Your task to perform on an android device: When is my next meeting? Image 0: 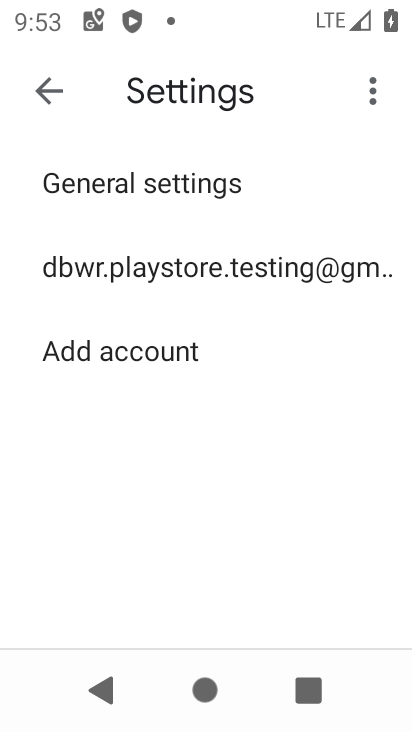
Step 0: press home button
Your task to perform on an android device: When is my next meeting? Image 1: 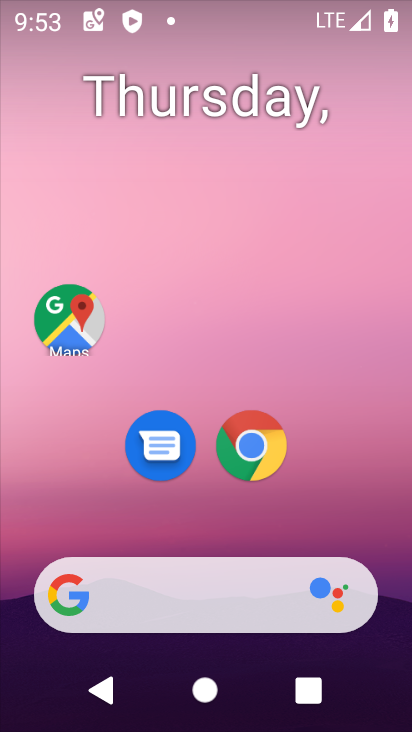
Step 1: drag from (95, 595) to (135, 357)
Your task to perform on an android device: When is my next meeting? Image 2: 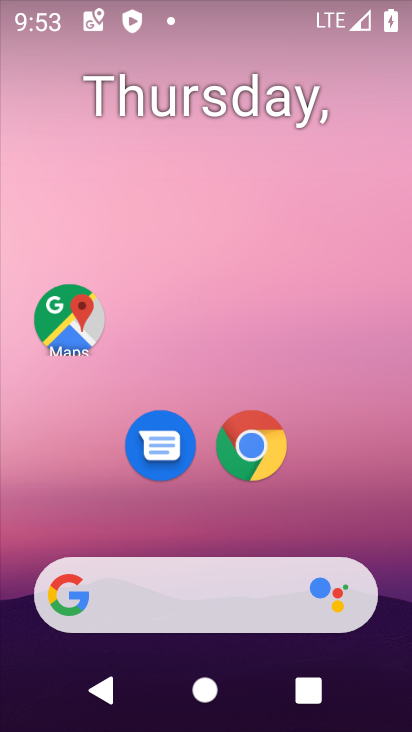
Step 2: drag from (293, 582) to (284, 107)
Your task to perform on an android device: When is my next meeting? Image 3: 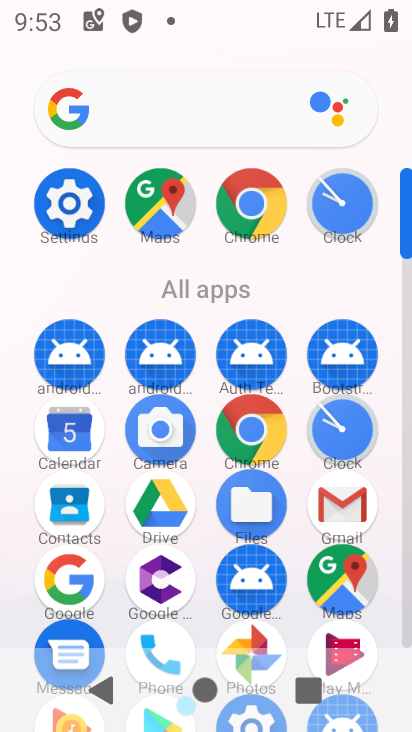
Step 3: drag from (120, 663) to (159, 307)
Your task to perform on an android device: When is my next meeting? Image 4: 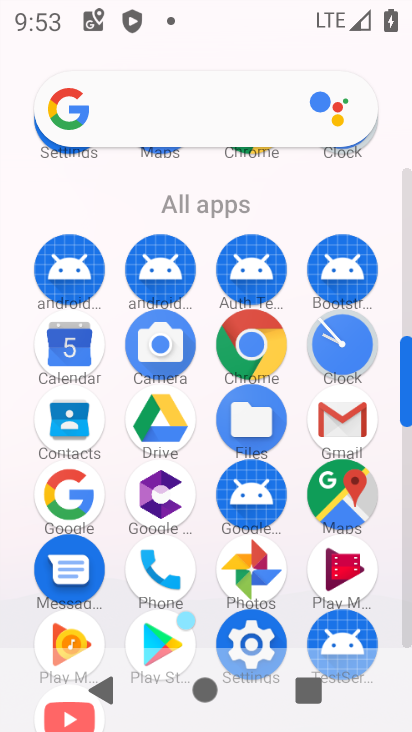
Step 4: click (73, 338)
Your task to perform on an android device: When is my next meeting? Image 5: 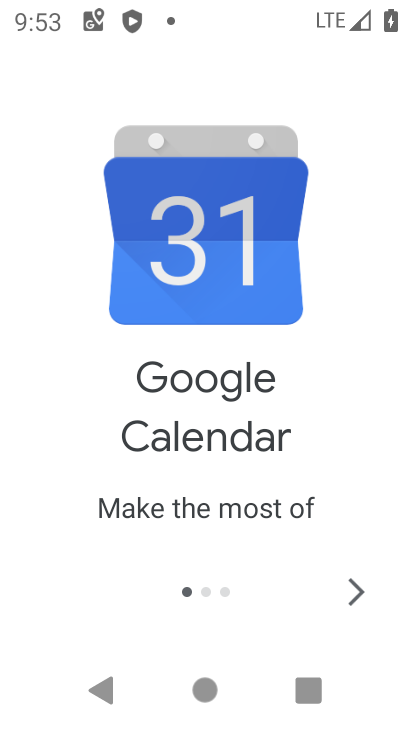
Step 5: click (349, 596)
Your task to perform on an android device: When is my next meeting? Image 6: 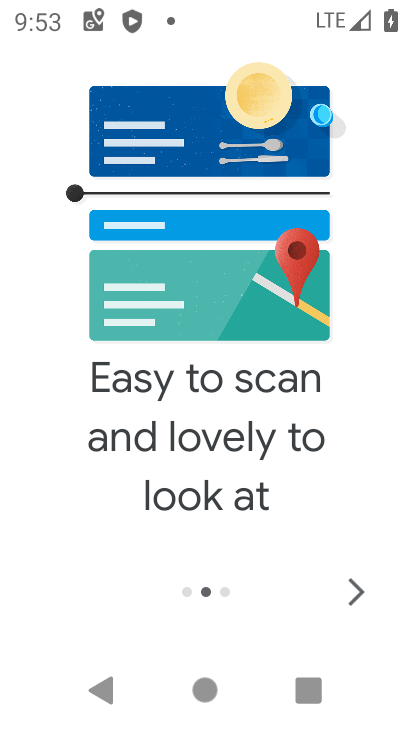
Step 6: click (353, 598)
Your task to perform on an android device: When is my next meeting? Image 7: 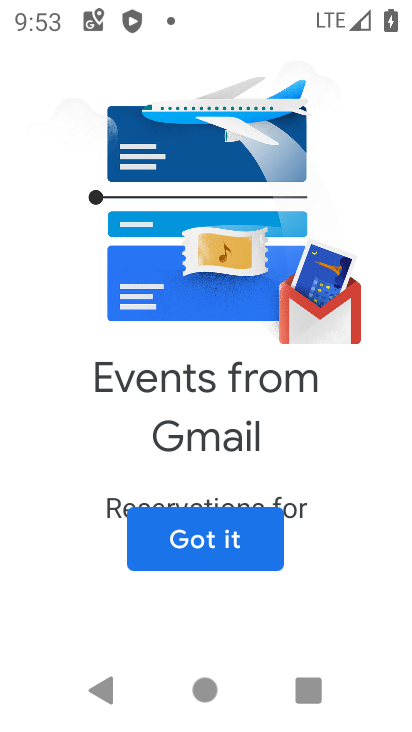
Step 7: click (209, 544)
Your task to perform on an android device: When is my next meeting? Image 8: 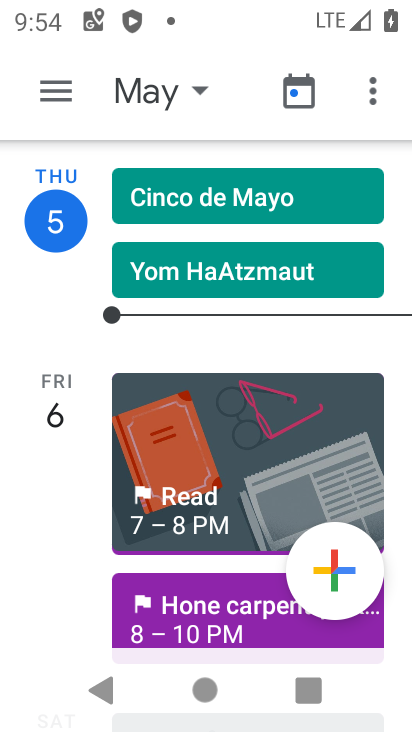
Step 8: click (52, 100)
Your task to perform on an android device: When is my next meeting? Image 9: 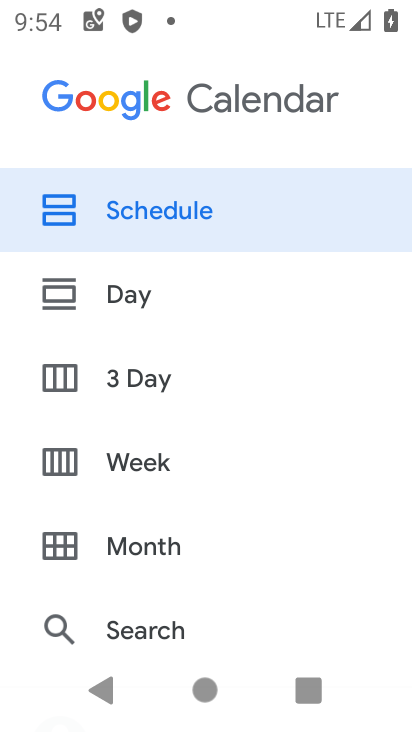
Step 9: click (159, 220)
Your task to perform on an android device: When is my next meeting? Image 10: 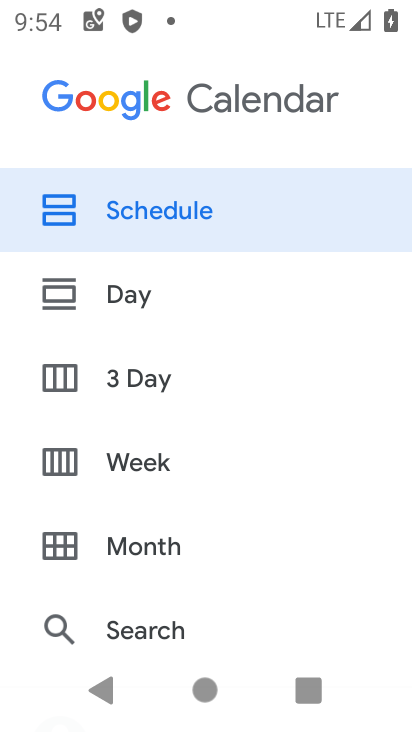
Step 10: click (274, 242)
Your task to perform on an android device: When is my next meeting? Image 11: 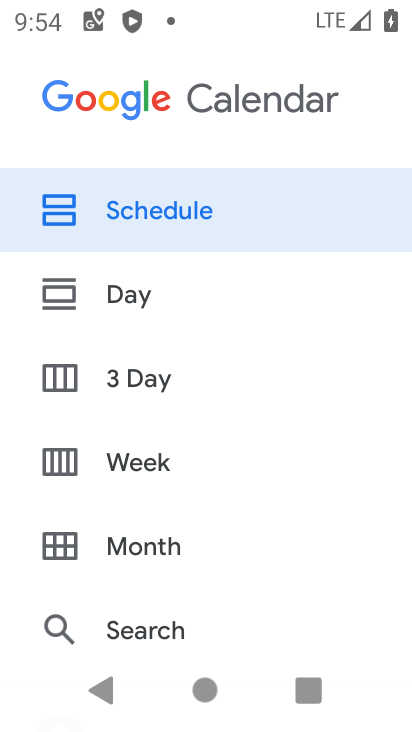
Step 11: click (133, 287)
Your task to perform on an android device: When is my next meeting? Image 12: 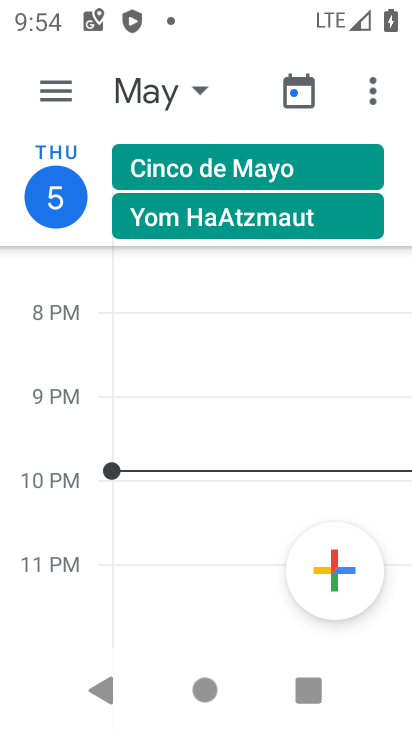
Step 12: click (43, 94)
Your task to perform on an android device: When is my next meeting? Image 13: 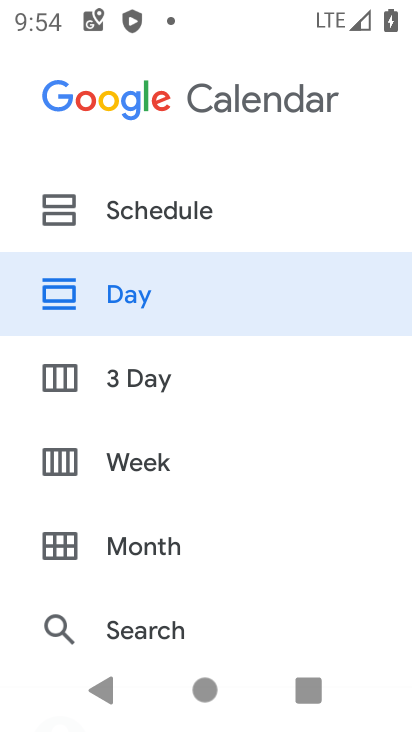
Step 13: click (113, 224)
Your task to perform on an android device: When is my next meeting? Image 14: 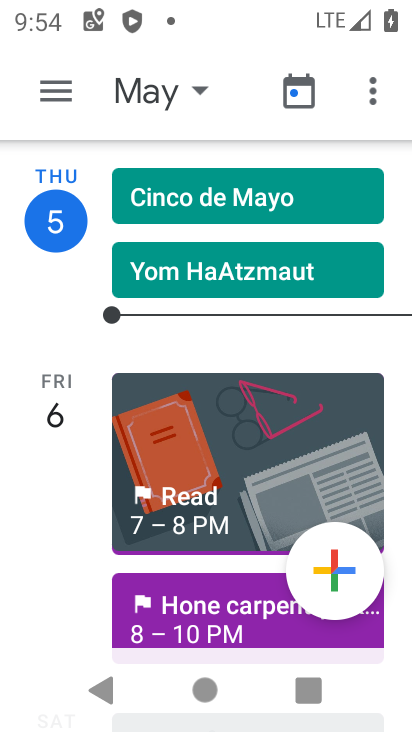
Step 14: task complete